Your task to perform on an android device: snooze an email in the gmail app Image 0: 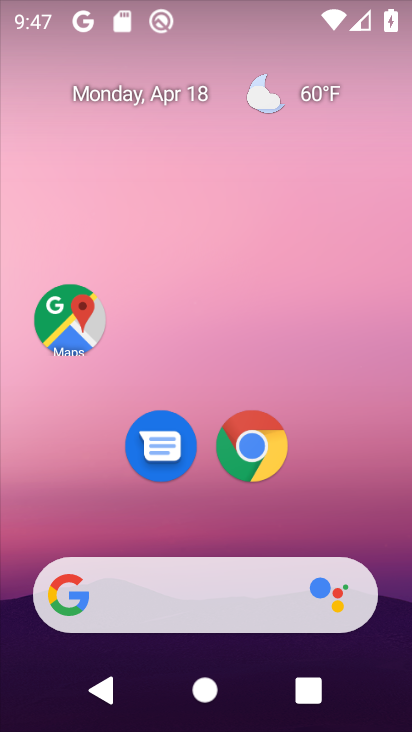
Step 0: drag from (385, 450) to (366, 87)
Your task to perform on an android device: snooze an email in the gmail app Image 1: 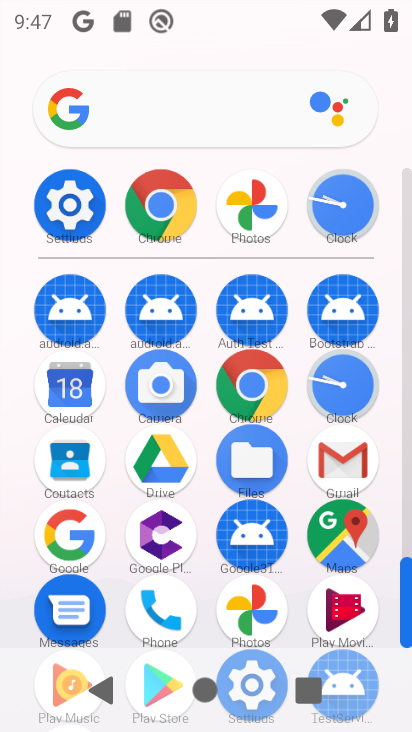
Step 1: click (352, 466)
Your task to perform on an android device: snooze an email in the gmail app Image 2: 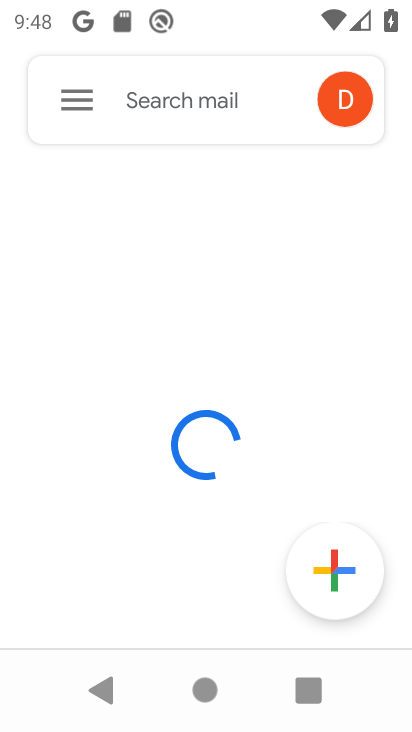
Step 2: click (76, 104)
Your task to perform on an android device: snooze an email in the gmail app Image 3: 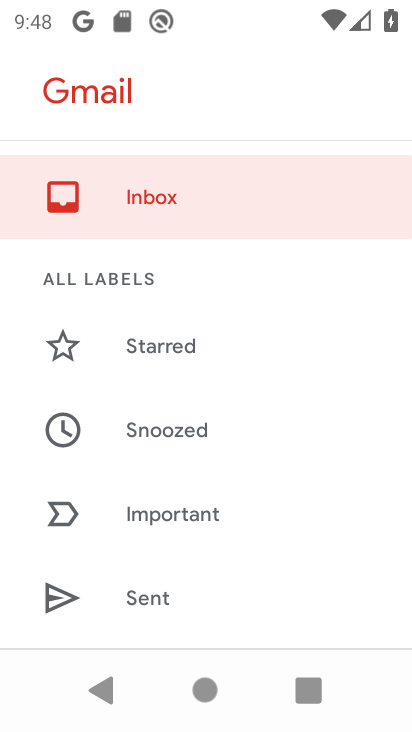
Step 3: click (176, 430)
Your task to perform on an android device: snooze an email in the gmail app Image 4: 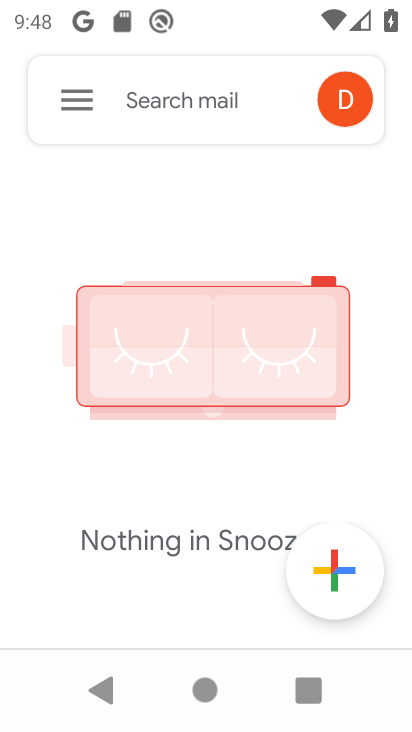
Step 4: task complete